Your task to perform on an android device: Open settings Image 0: 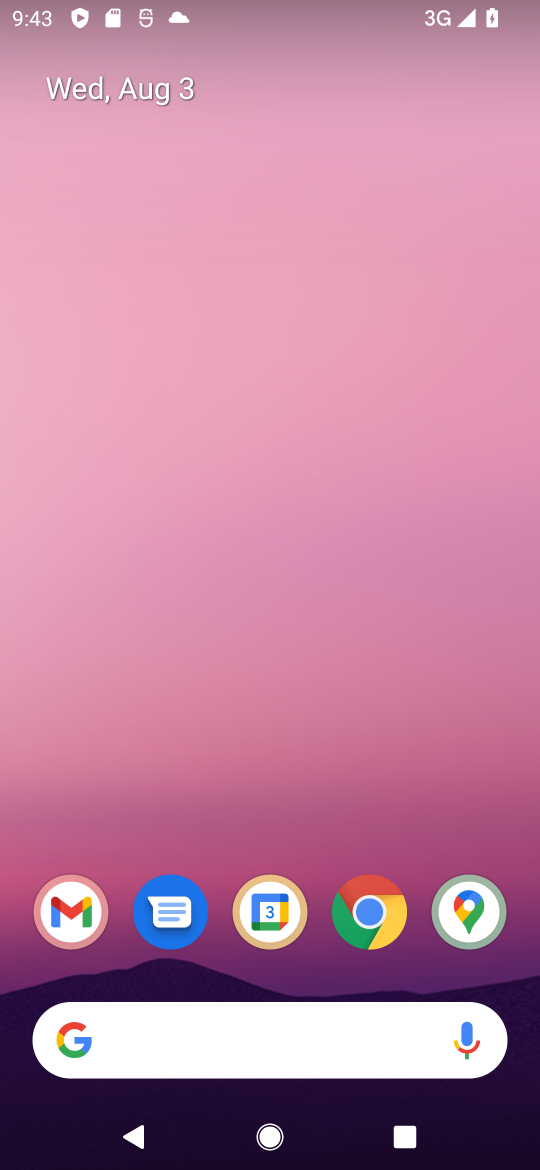
Step 0: drag from (381, 744) to (13, 1)
Your task to perform on an android device: Open settings Image 1: 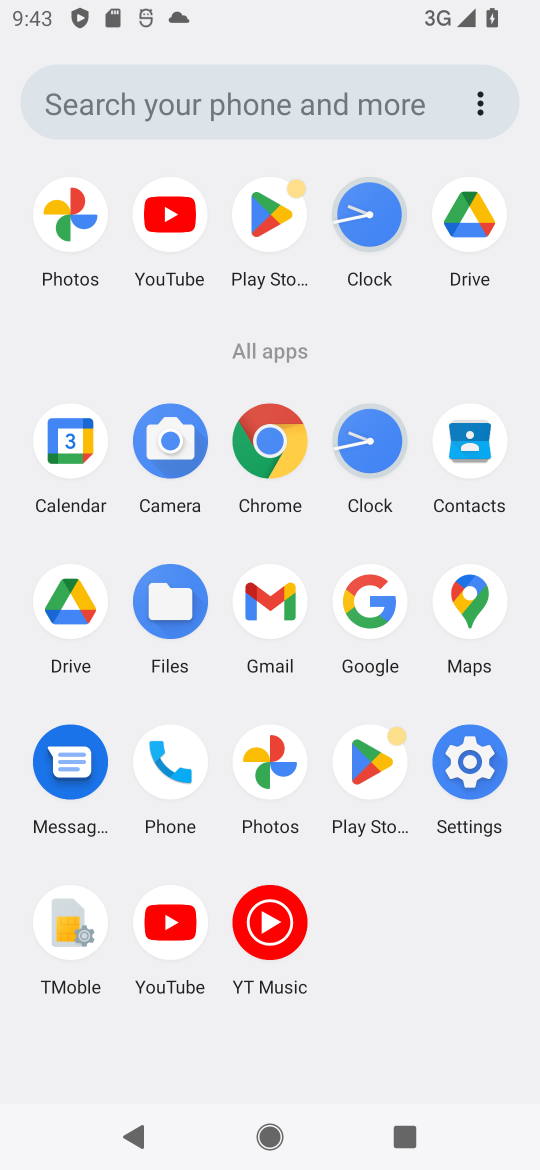
Step 1: click (450, 769)
Your task to perform on an android device: Open settings Image 2: 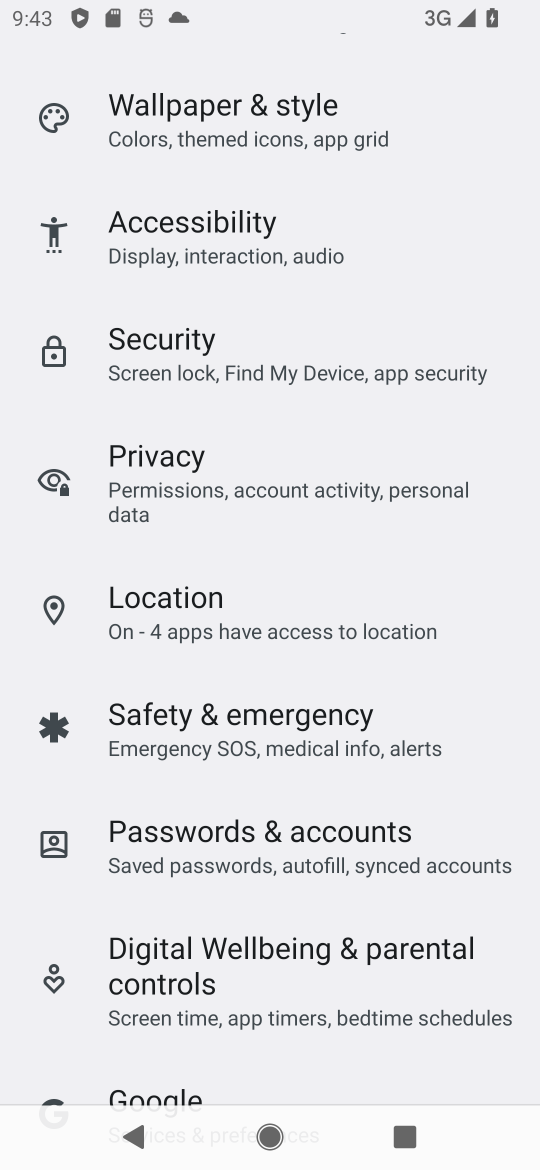
Step 2: task complete